Your task to perform on an android device: turn on location history Image 0: 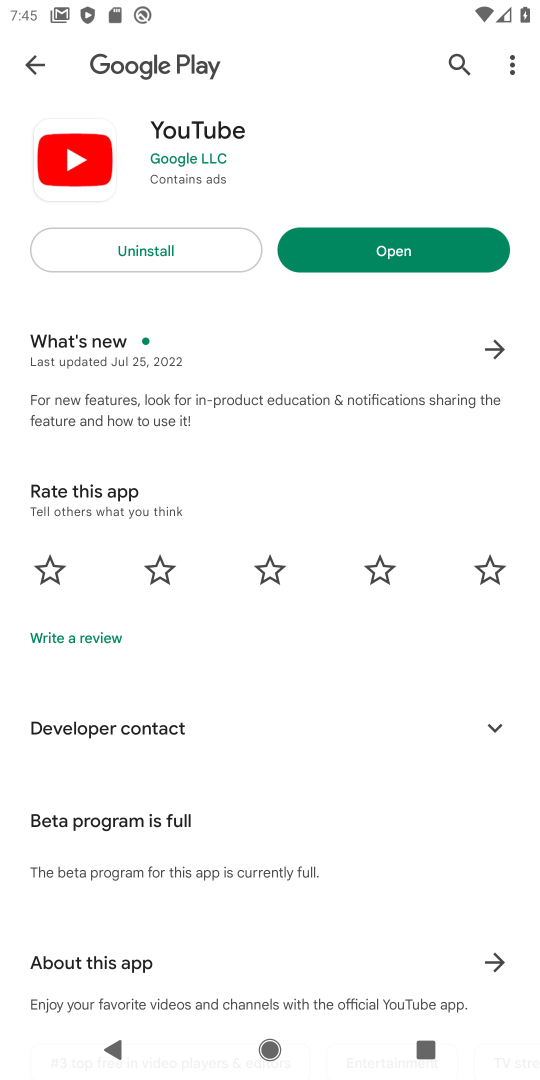
Step 0: press home button
Your task to perform on an android device: turn on location history Image 1: 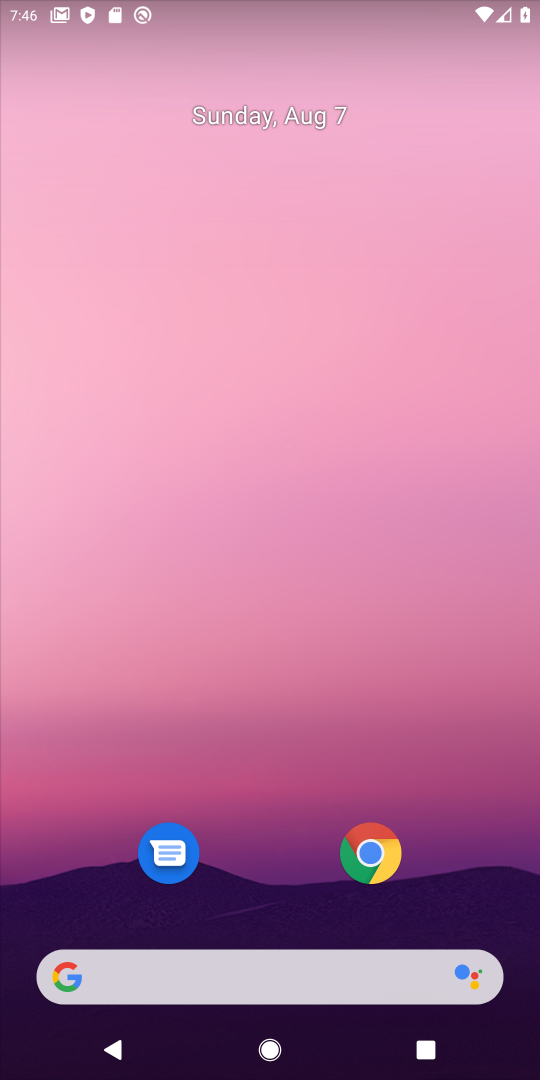
Step 1: drag from (264, 907) to (287, 416)
Your task to perform on an android device: turn on location history Image 2: 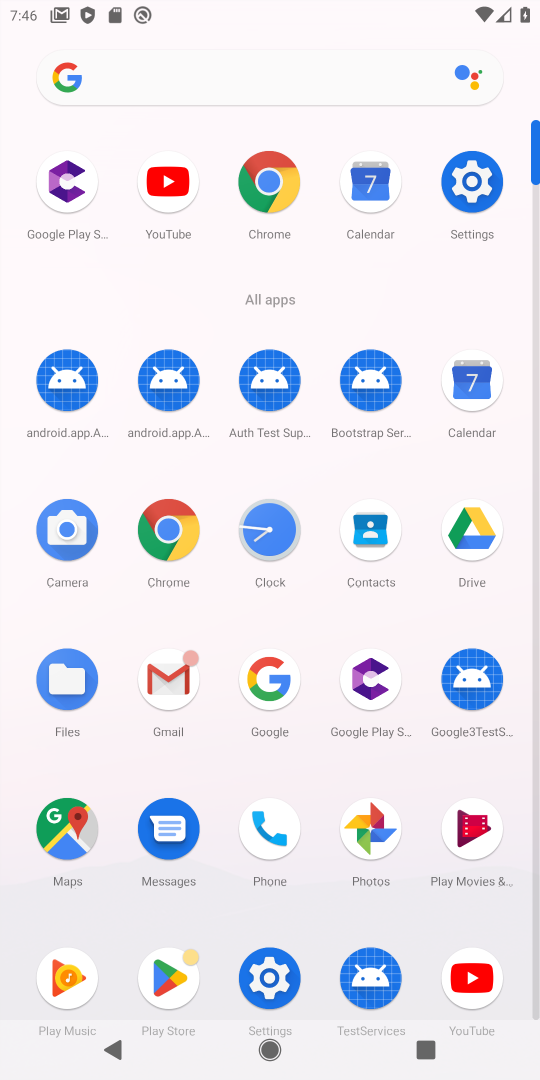
Step 2: click (262, 959)
Your task to perform on an android device: turn on location history Image 3: 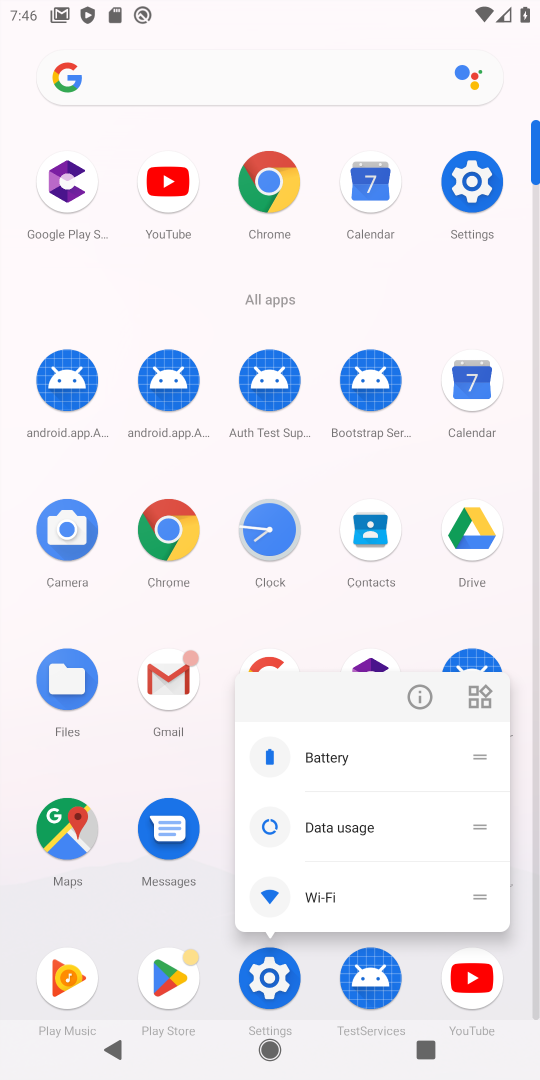
Step 3: click (268, 974)
Your task to perform on an android device: turn on location history Image 4: 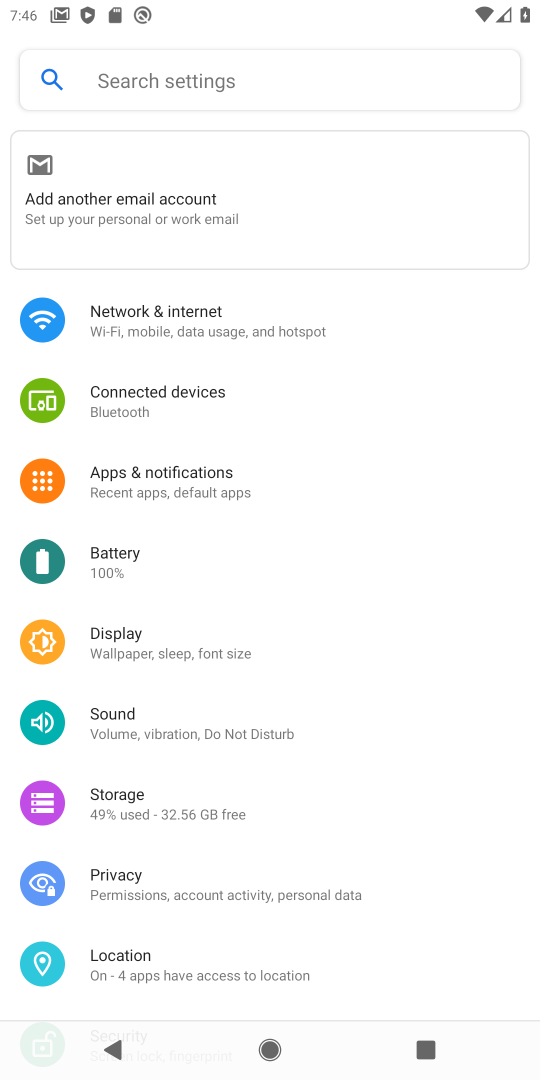
Step 4: click (155, 963)
Your task to perform on an android device: turn on location history Image 5: 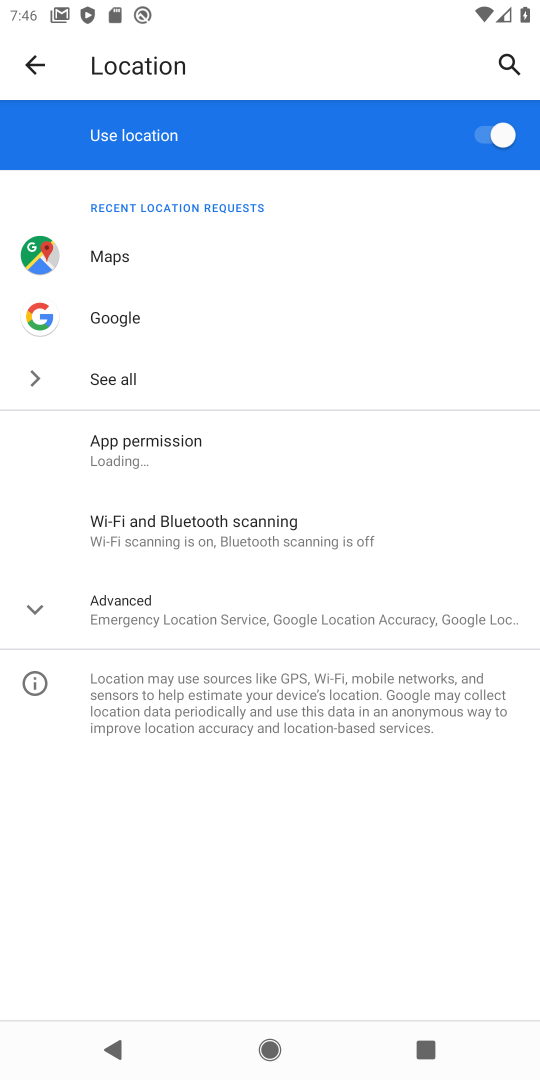
Step 5: click (130, 619)
Your task to perform on an android device: turn on location history Image 6: 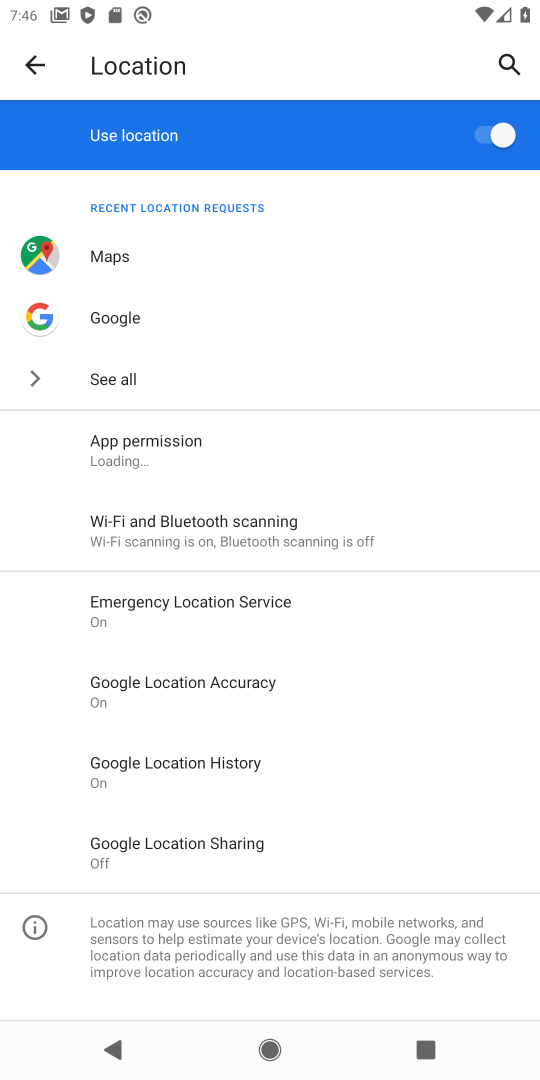
Step 6: click (179, 757)
Your task to perform on an android device: turn on location history Image 7: 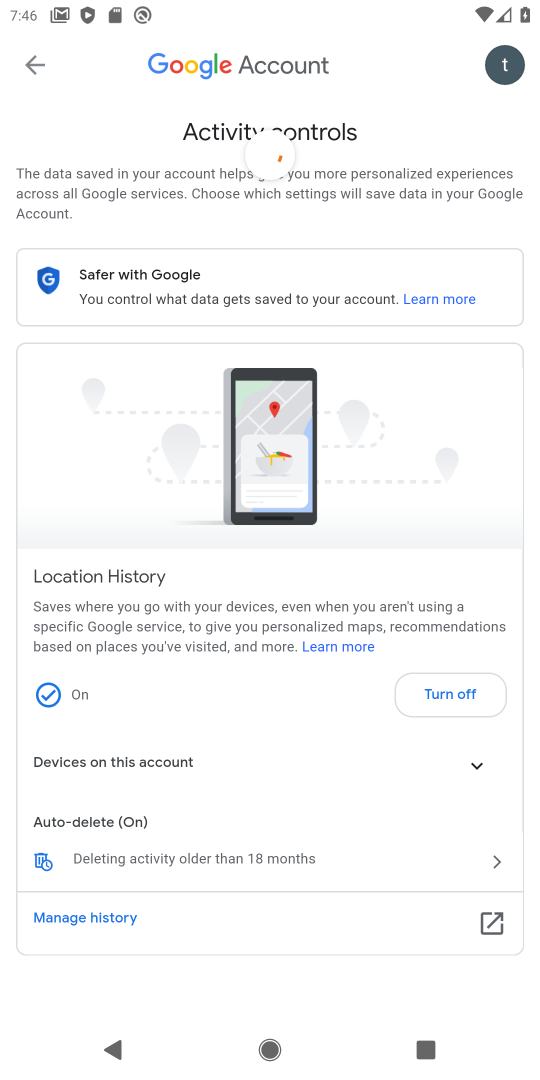
Step 7: task complete